Your task to perform on an android device: Search for vegetarian restaurants on Maps Image 0: 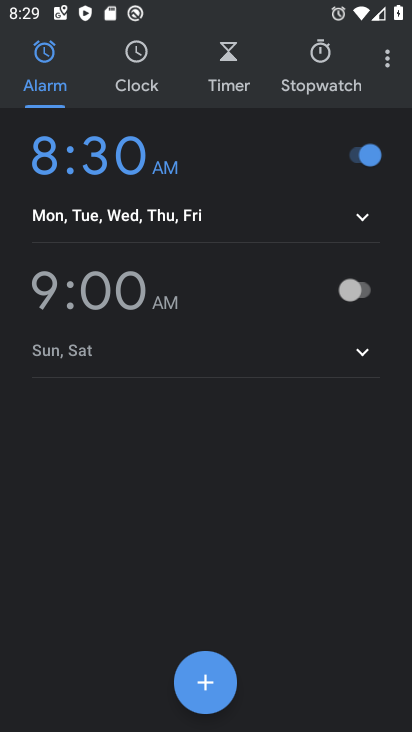
Step 0: press back button
Your task to perform on an android device: Search for vegetarian restaurants on Maps Image 1: 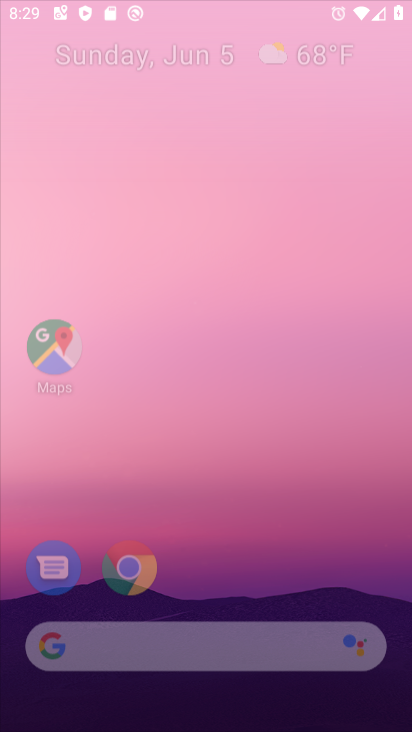
Step 1: press home button
Your task to perform on an android device: Search for vegetarian restaurants on Maps Image 2: 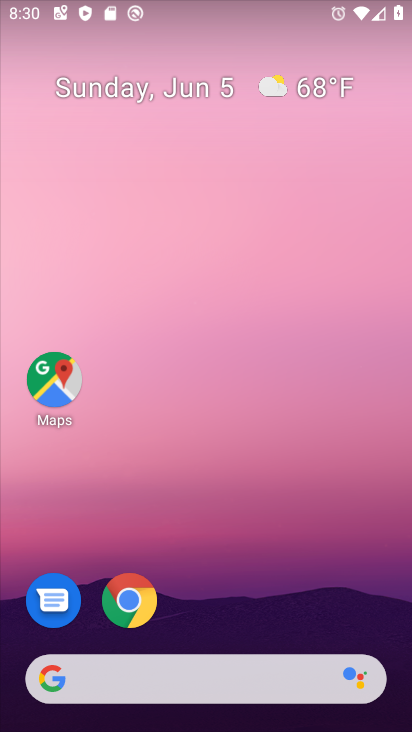
Step 2: click (215, 275)
Your task to perform on an android device: Search for vegetarian restaurants on Maps Image 3: 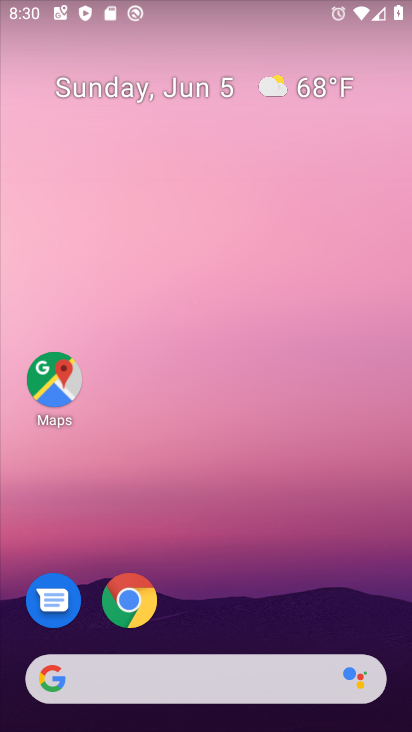
Step 3: drag from (382, 518) to (280, 49)
Your task to perform on an android device: Search for vegetarian restaurants on Maps Image 4: 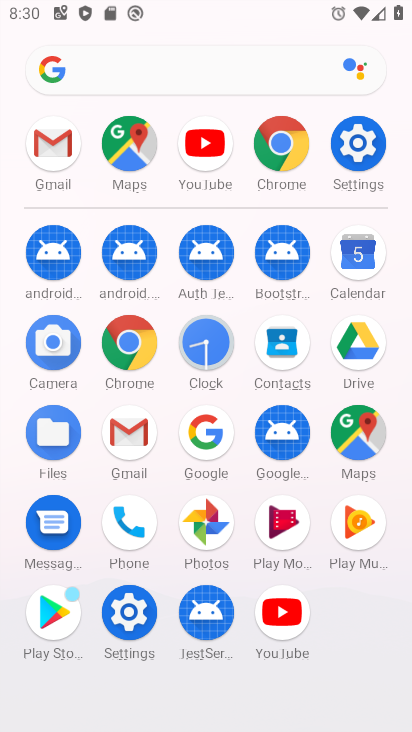
Step 4: click (356, 448)
Your task to perform on an android device: Search for vegetarian restaurants on Maps Image 5: 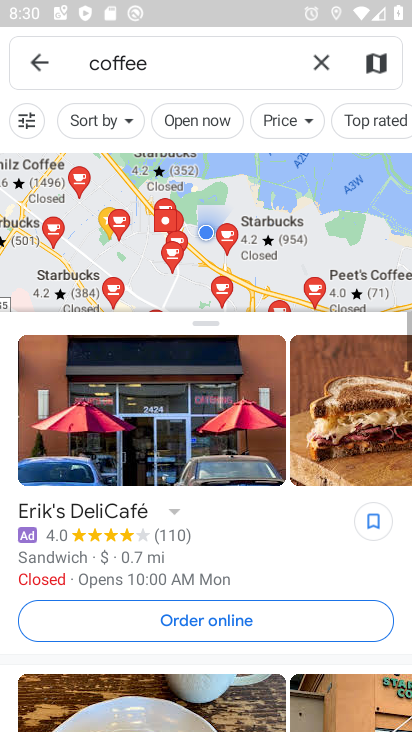
Step 5: click (324, 66)
Your task to perform on an android device: Search for vegetarian restaurants on Maps Image 6: 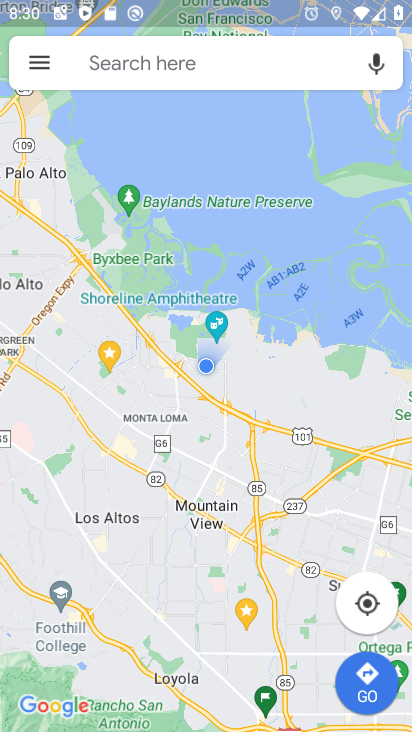
Step 6: click (108, 72)
Your task to perform on an android device: Search for vegetarian restaurants on Maps Image 7: 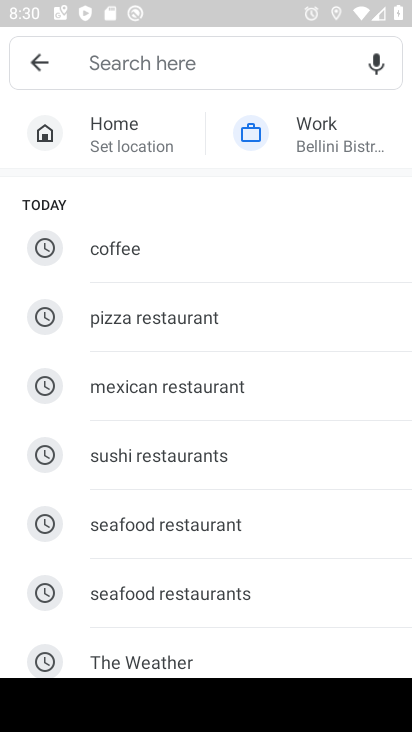
Step 7: drag from (168, 595) to (231, 225)
Your task to perform on an android device: Search for vegetarian restaurants on Maps Image 8: 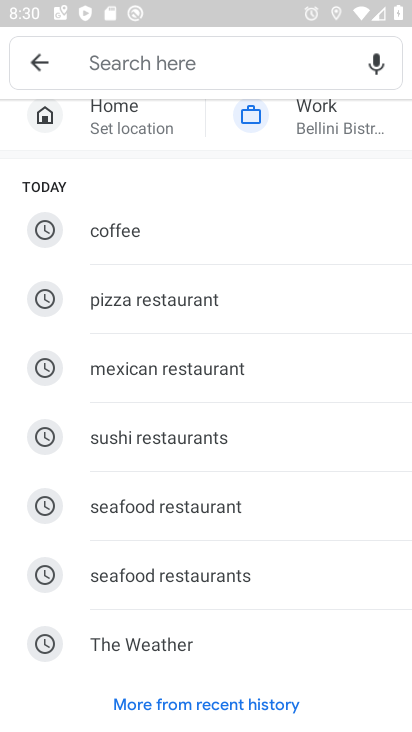
Step 8: click (141, 75)
Your task to perform on an android device: Search for vegetarian restaurants on Maps Image 9: 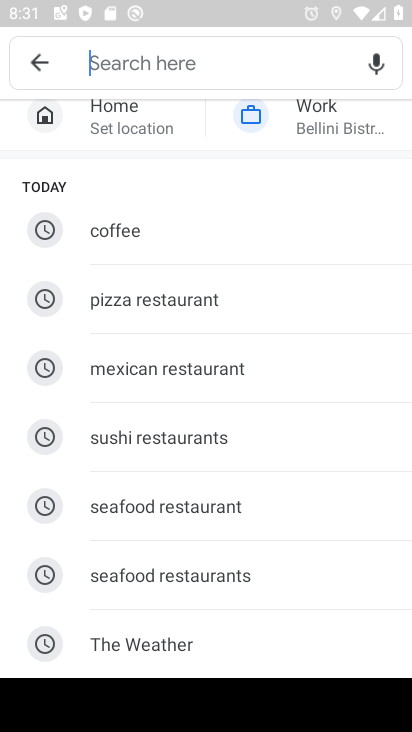
Step 9: type "vegetarian restaurants"
Your task to perform on an android device: Search for vegetarian restaurants on Maps Image 10: 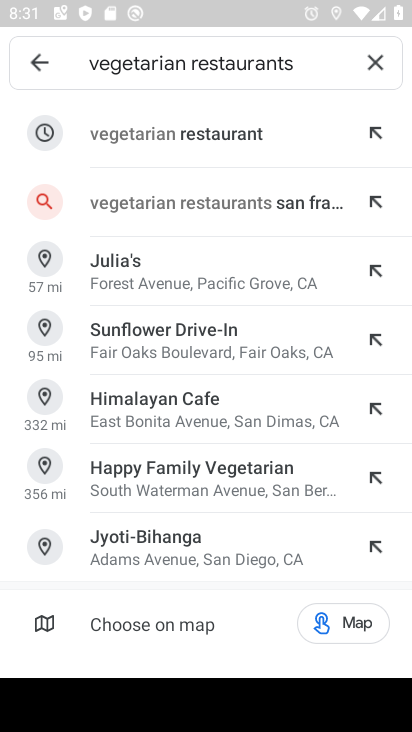
Step 10: click (234, 135)
Your task to perform on an android device: Search for vegetarian restaurants on Maps Image 11: 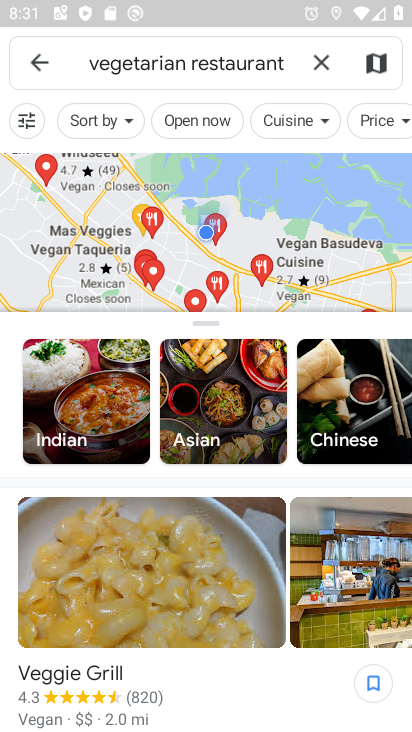
Step 11: task complete